Your task to perform on an android device: turn off priority inbox in the gmail app Image 0: 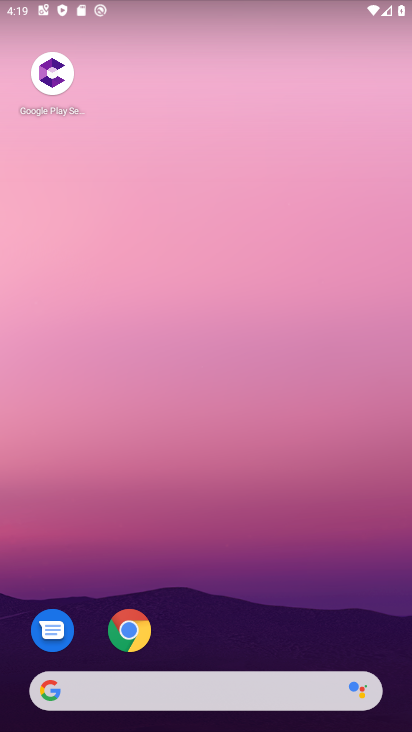
Step 0: drag from (238, 624) to (296, 3)
Your task to perform on an android device: turn off priority inbox in the gmail app Image 1: 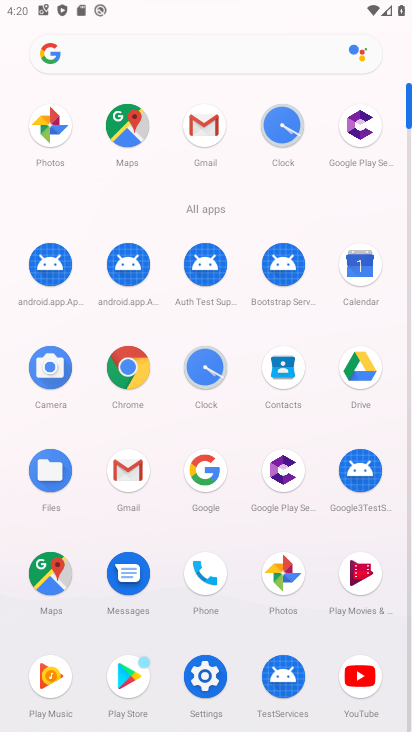
Step 1: click (131, 471)
Your task to perform on an android device: turn off priority inbox in the gmail app Image 2: 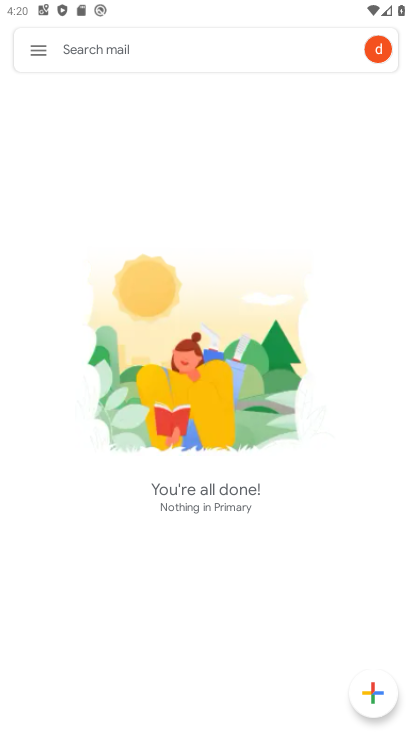
Step 2: click (41, 52)
Your task to perform on an android device: turn off priority inbox in the gmail app Image 3: 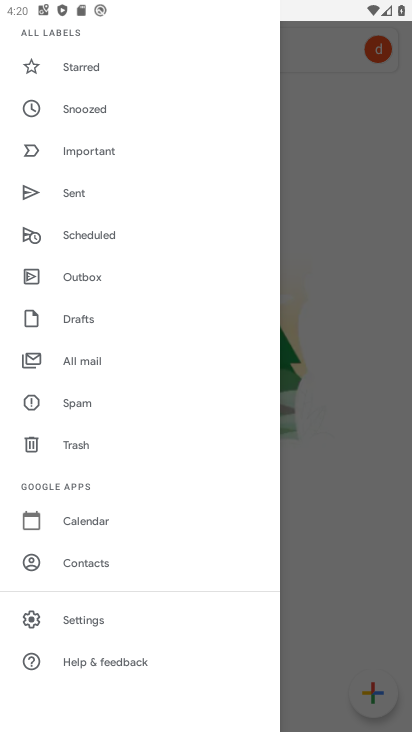
Step 3: click (91, 620)
Your task to perform on an android device: turn off priority inbox in the gmail app Image 4: 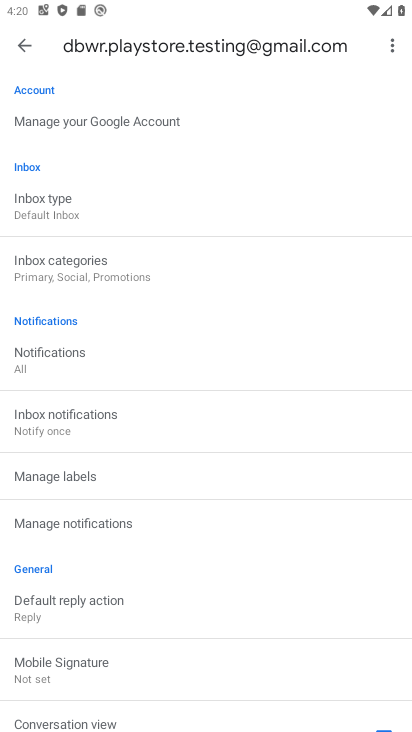
Step 4: click (47, 209)
Your task to perform on an android device: turn off priority inbox in the gmail app Image 5: 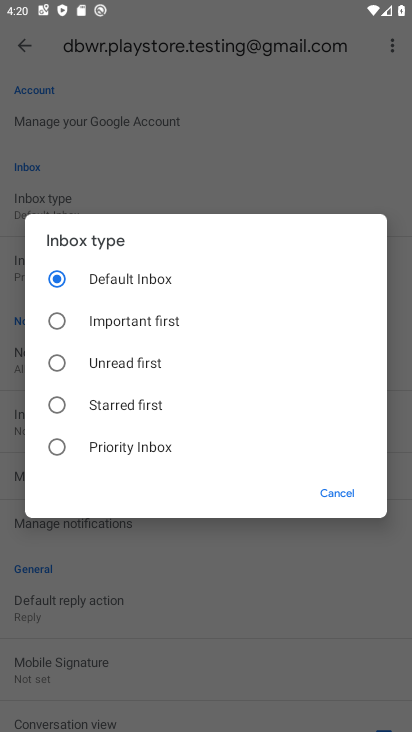
Step 5: click (80, 273)
Your task to perform on an android device: turn off priority inbox in the gmail app Image 6: 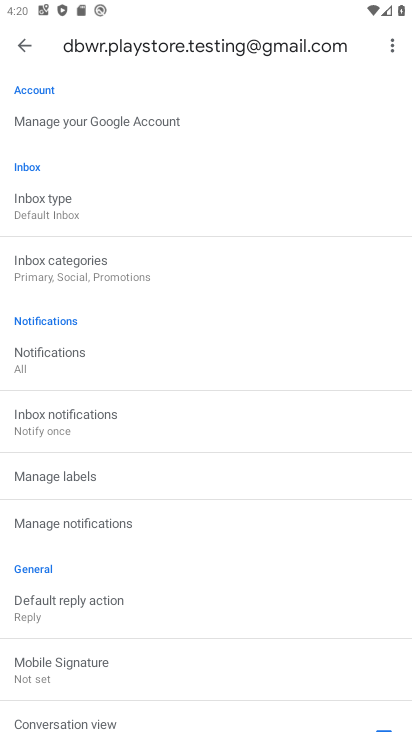
Step 6: task complete